Your task to perform on an android device: Open accessibility settings Image 0: 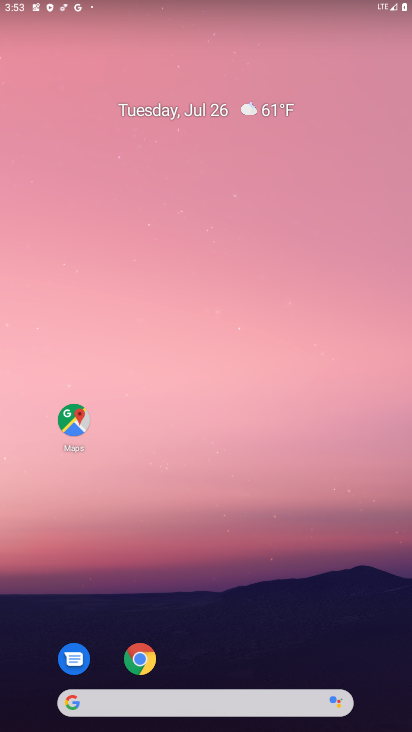
Step 0: drag from (303, 626) to (292, 48)
Your task to perform on an android device: Open accessibility settings Image 1: 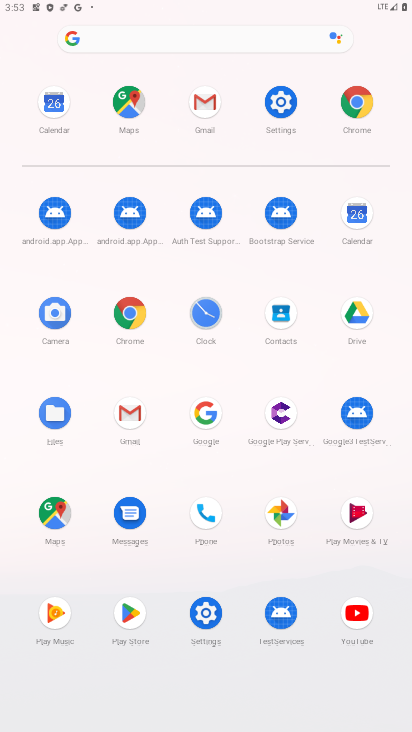
Step 1: click (291, 97)
Your task to perform on an android device: Open accessibility settings Image 2: 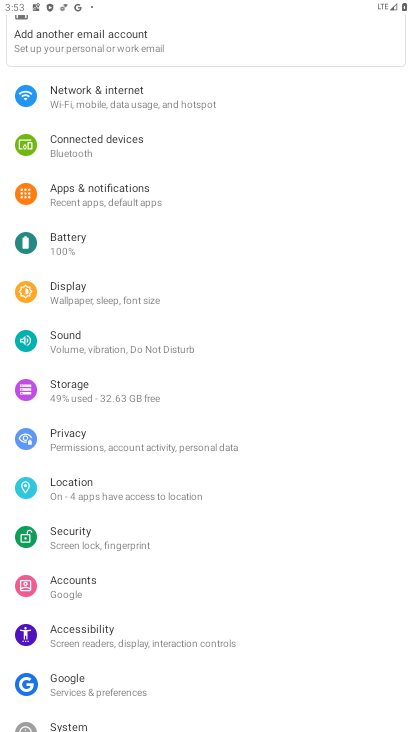
Step 2: drag from (143, 500) to (186, 204)
Your task to perform on an android device: Open accessibility settings Image 3: 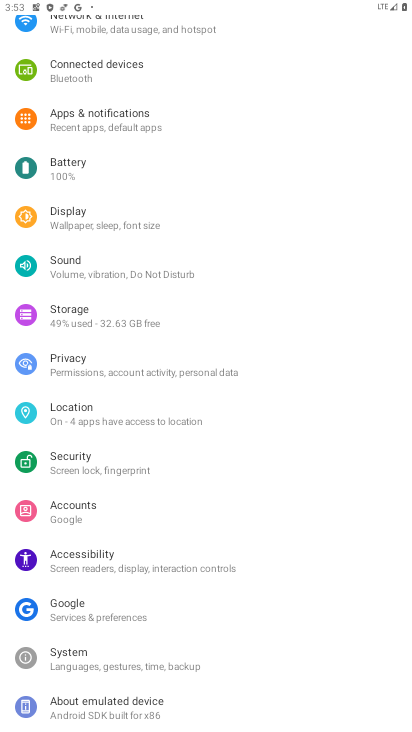
Step 3: click (120, 557)
Your task to perform on an android device: Open accessibility settings Image 4: 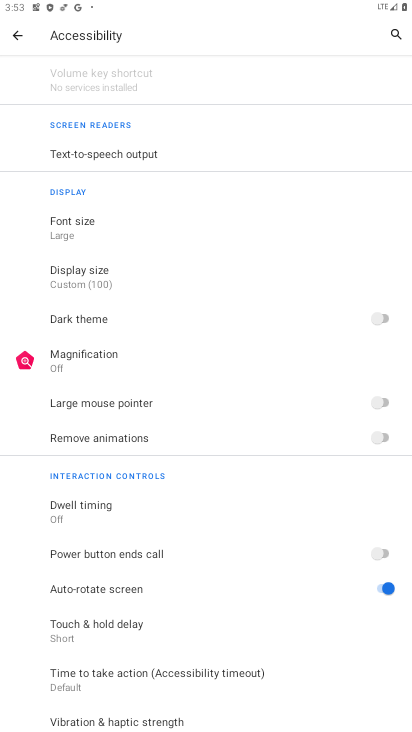
Step 4: task complete